Your task to perform on an android device: Open accessibility settings Image 0: 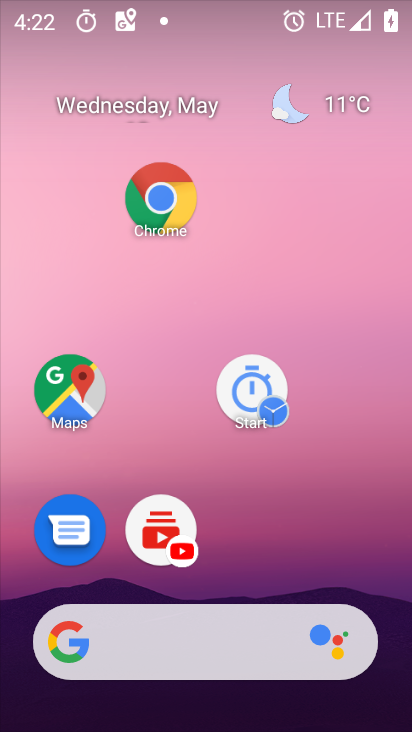
Step 0: drag from (297, 550) to (249, 302)
Your task to perform on an android device: Open accessibility settings Image 1: 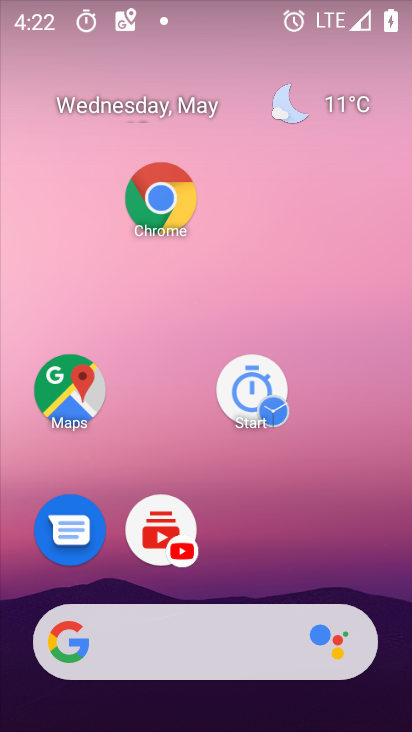
Step 1: drag from (285, 552) to (218, 290)
Your task to perform on an android device: Open accessibility settings Image 2: 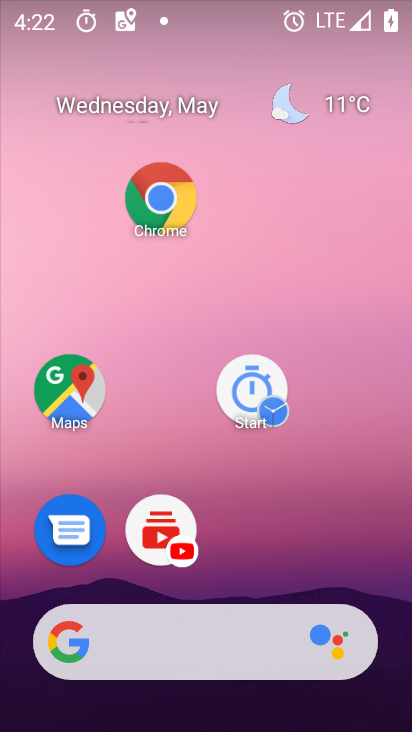
Step 2: drag from (261, 666) to (217, 121)
Your task to perform on an android device: Open accessibility settings Image 3: 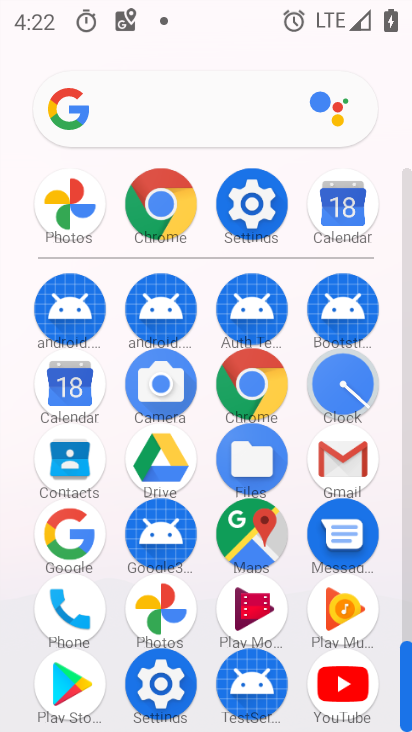
Step 3: click (247, 207)
Your task to perform on an android device: Open accessibility settings Image 4: 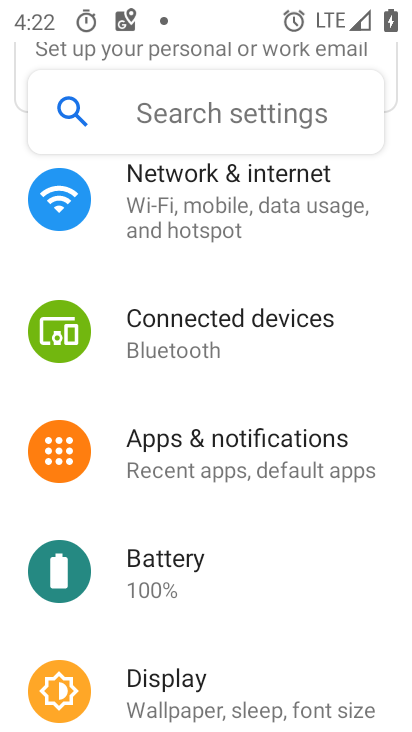
Step 4: drag from (172, 611) to (170, 258)
Your task to perform on an android device: Open accessibility settings Image 5: 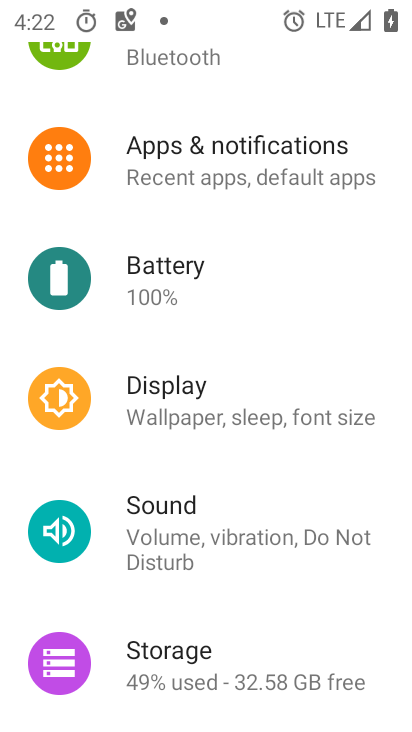
Step 5: drag from (210, 534) to (202, 299)
Your task to perform on an android device: Open accessibility settings Image 6: 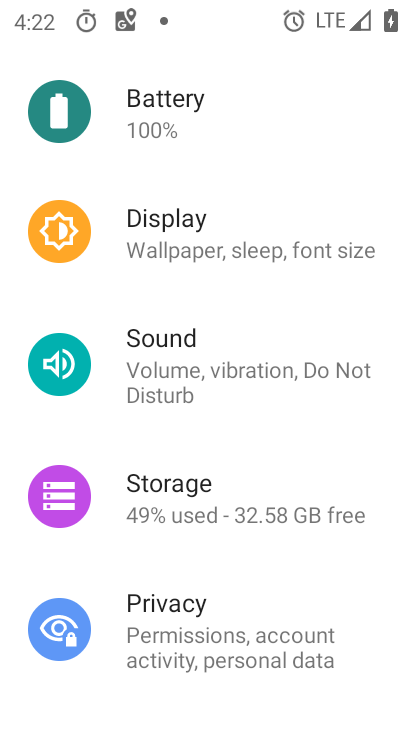
Step 6: drag from (203, 556) to (194, 341)
Your task to perform on an android device: Open accessibility settings Image 7: 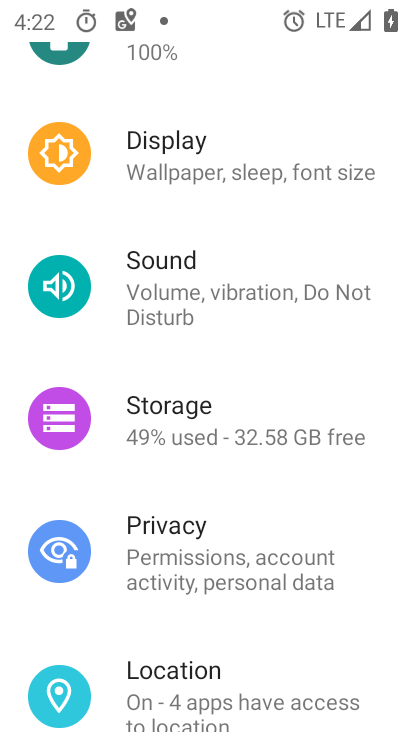
Step 7: drag from (194, 558) to (207, 266)
Your task to perform on an android device: Open accessibility settings Image 8: 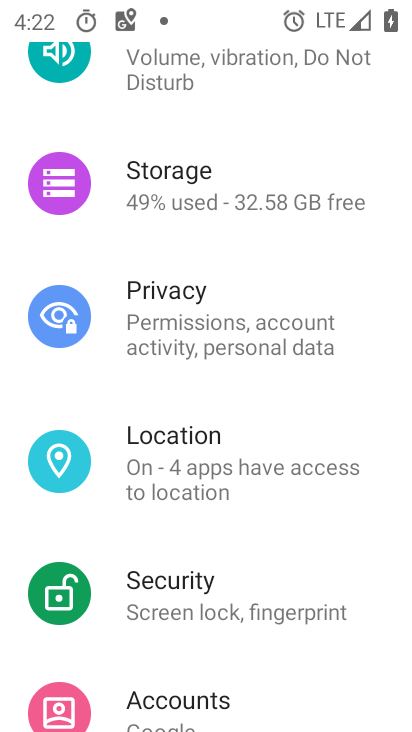
Step 8: drag from (203, 599) to (184, 281)
Your task to perform on an android device: Open accessibility settings Image 9: 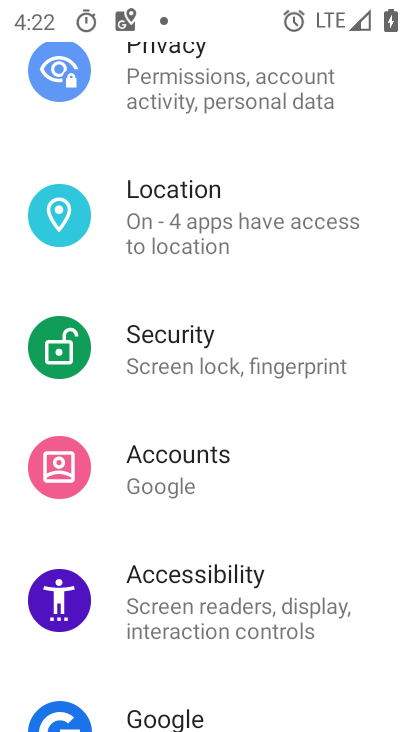
Step 9: drag from (163, 618) to (149, 270)
Your task to perform on an android device: Open accessibility settings Image 10: 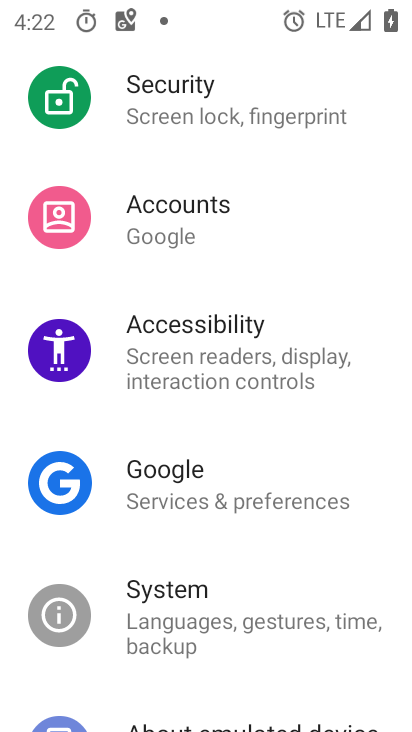
Step 10: click (176, 361)
Your task to perform on an android device: Open accessibility settings Image 11: 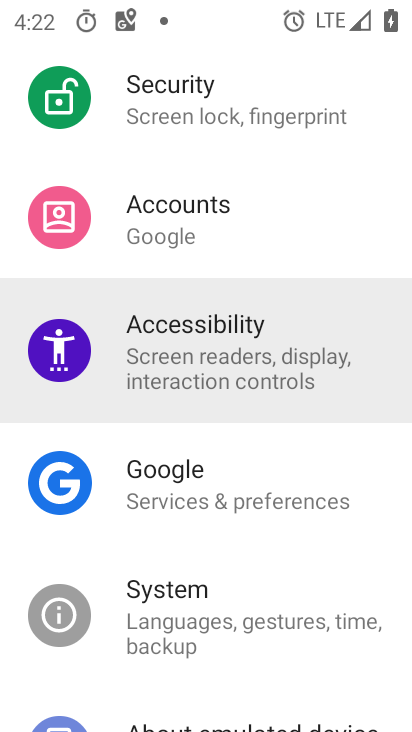
Step 11: click (176, 361)
Your task to perform on an android device: Open accessibility settings Image 12: 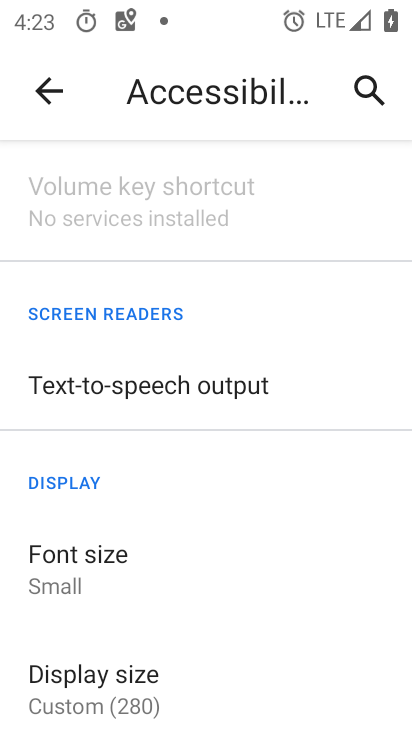
Step 12: task complete